Your task to perform on an android device: Open Chrome and go to settings Image 0: 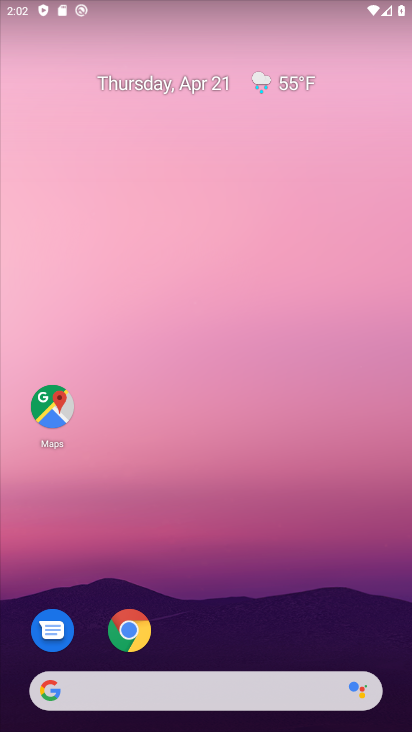
Step 0: click (135, 640)
Your task to perform on an android device: Open Chrome and go to settings Image 1: 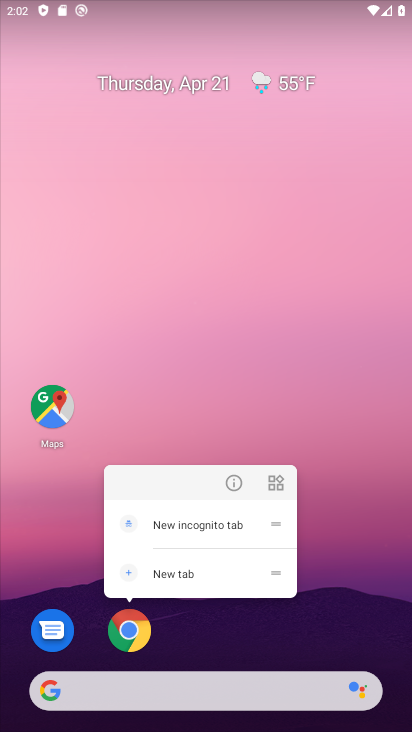
Step 1: click (135, 640)
Your task to perform on an android device: Open Chrome and go to settings Image 2: 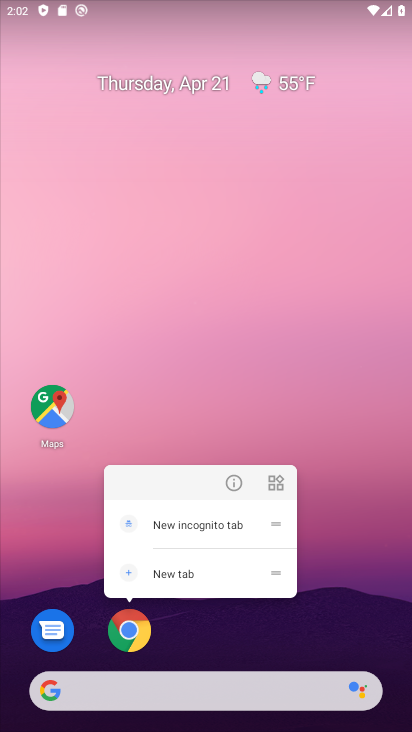
Step 2: click (134, 629)
Your task to perform on an android device: Open Chrome and go to settings Image 3: 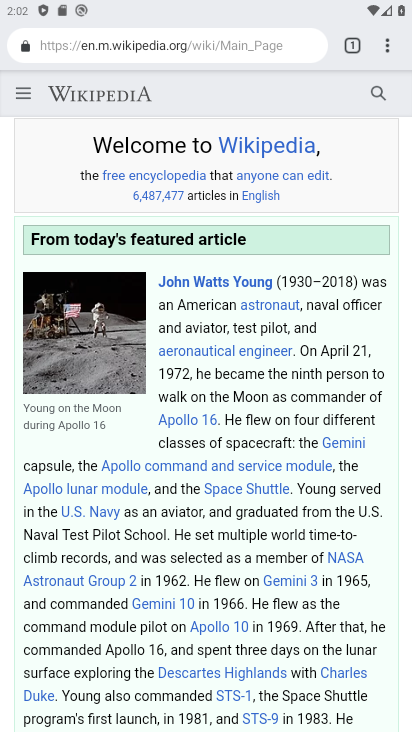
Step 3: task complete